Your task to perform on an android device: Open Google Maps Image 0: 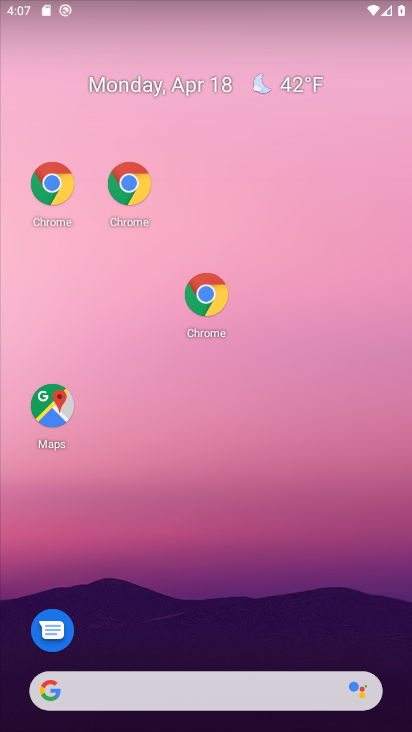
Step 0: drag from (220, 644) to (171, 35)
Your task to perform on an android device: Open Google Maps Image 1: 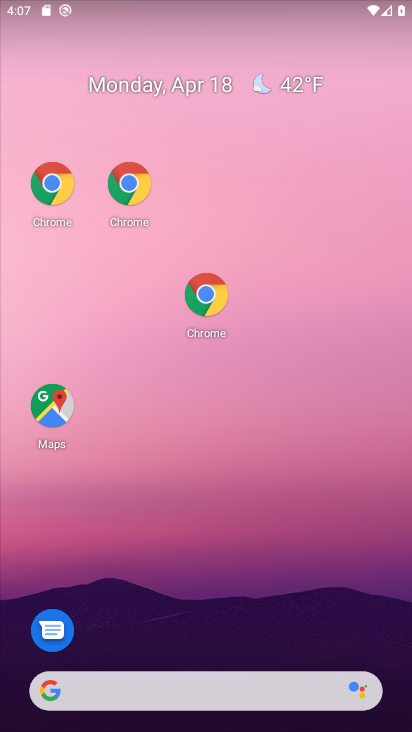
Step 1: click (169, 33)
Your task to perform on an android device: Open Google Maps Image 2: 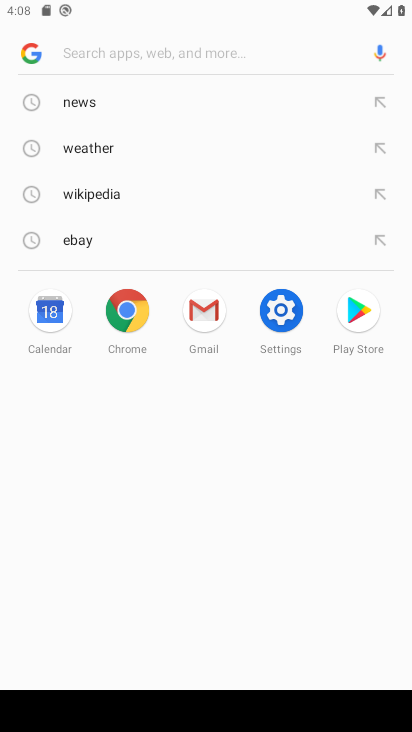
Step 2: press home button
Your task to perform on an android device: Open Google Maps Image 3: 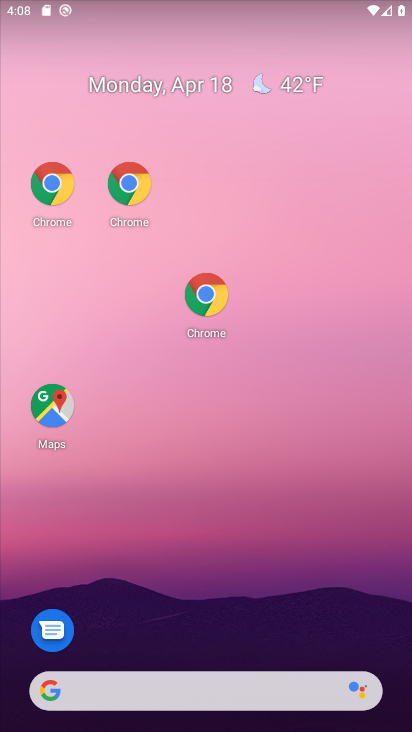
Step 3: drag from (239, 621) to (160, 148)
Your task to perform on an android device: Open Google Maps Image 4: 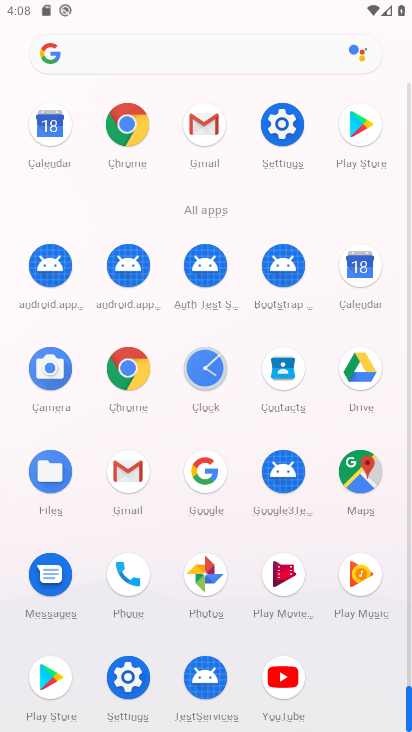
Step 4: click (352, 478)
Your task to perform on an android device: Open Google Maps Image 5: 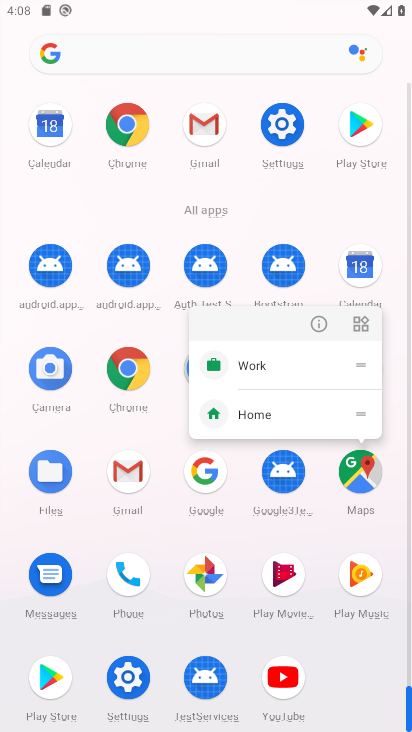
Step 5: click (361, 479)
Your task to perform on an android device: Open Google Maps Image 6: 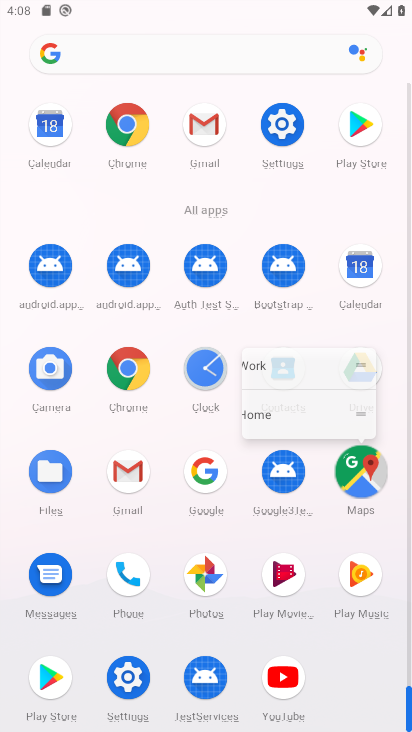
Step 6: click (361, 479)
Your task to perform on an android device: Open Google Maps Image 7: 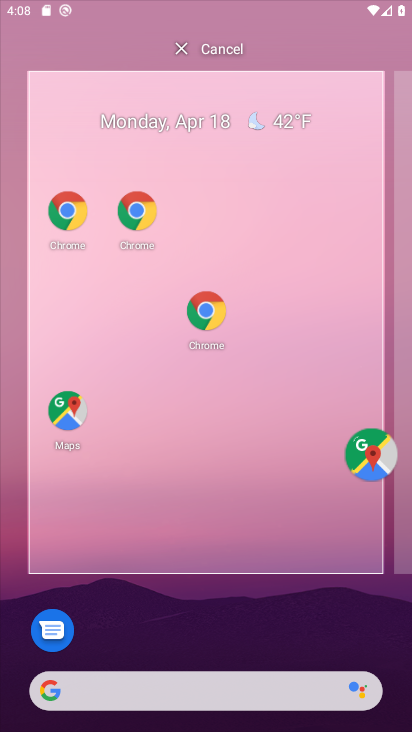
Step 7: click (371, 477)
Your task to perform on an android device: Open Google Maps Image 8: 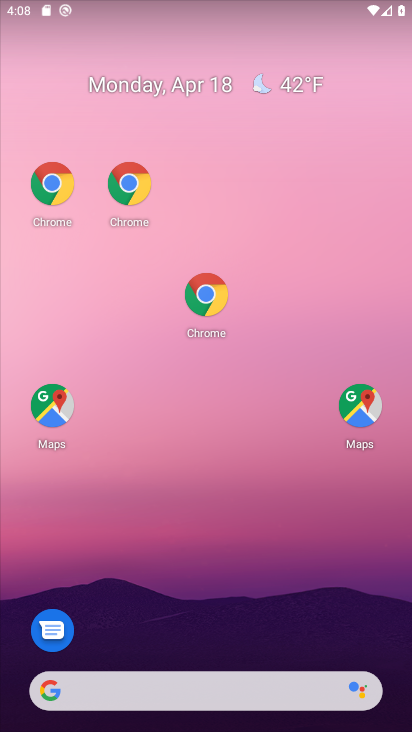
Step 8: click (354, 394)
Your task to perform on an android device: Open Google Maps Image 9: 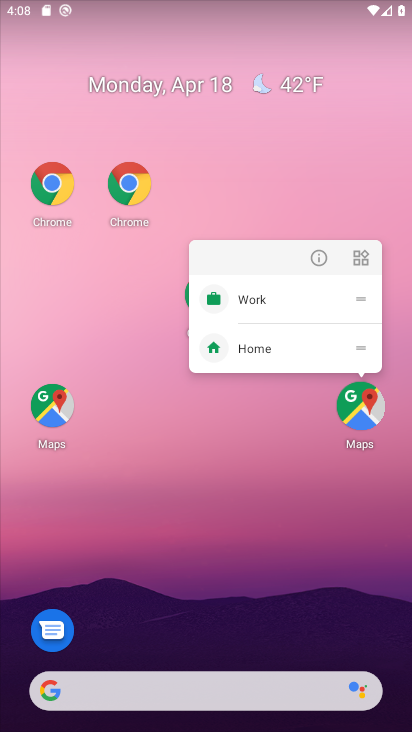
Step 9: click (354, 394)
Your task to perform on an android device: Open Google Maps Image 10: 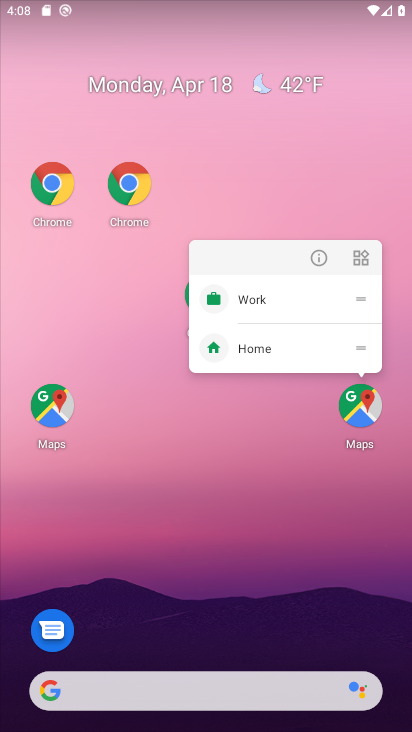
Step 10: drag from (367, 402) to (371, 464)
Your task to perform on an android device: Open Google Maps Image 11: 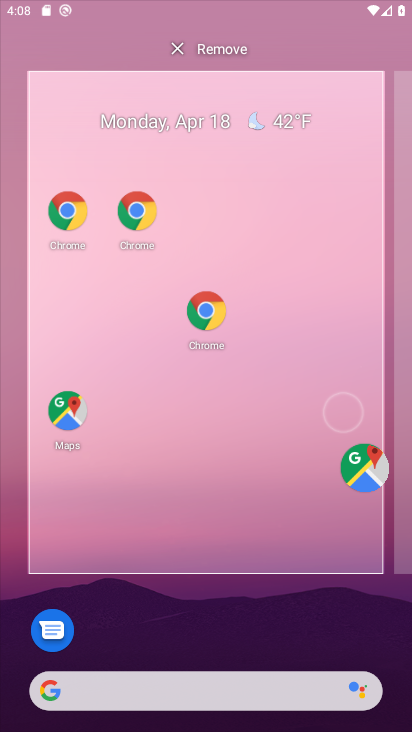
Step 11: click (355, 423)
Your task to perform on an android device: Open Google Maps Image 12: 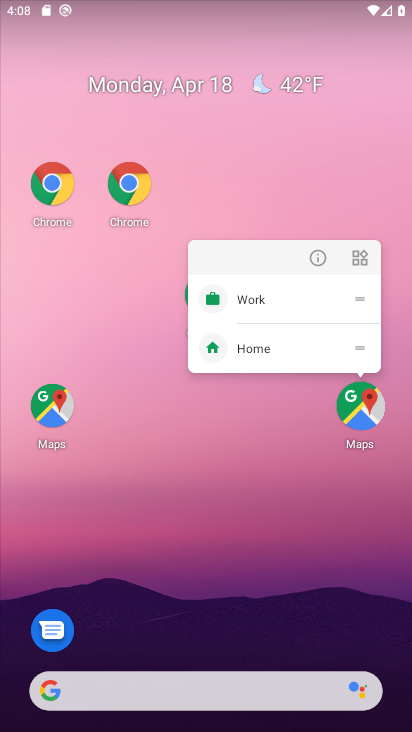
Step 12: click (333, 373)
Your task to perform on an android device: Open Google Maps Image 13: 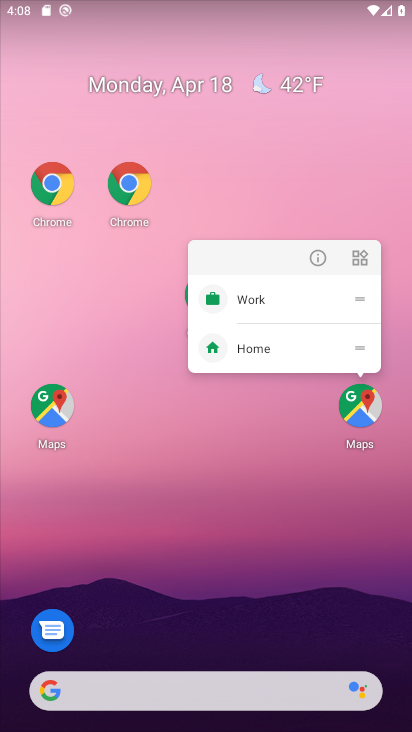
Step 13: click (346, 404)
Your task to perform on an android device: Open Google Maps Image 14: 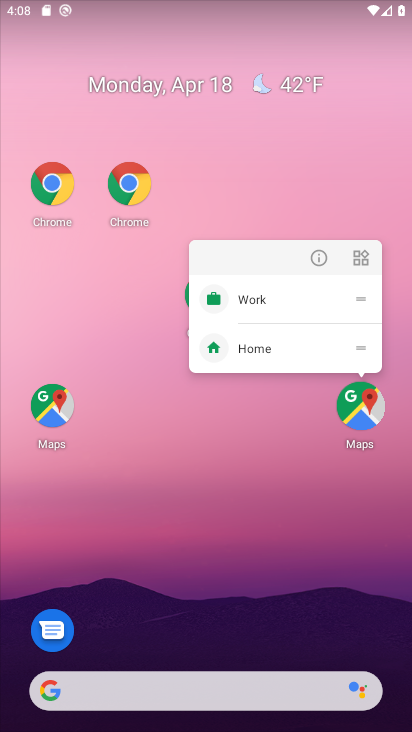
Step 14: click (342, 407)
Your task to perform on an android device: Open Google Maps Image 15: 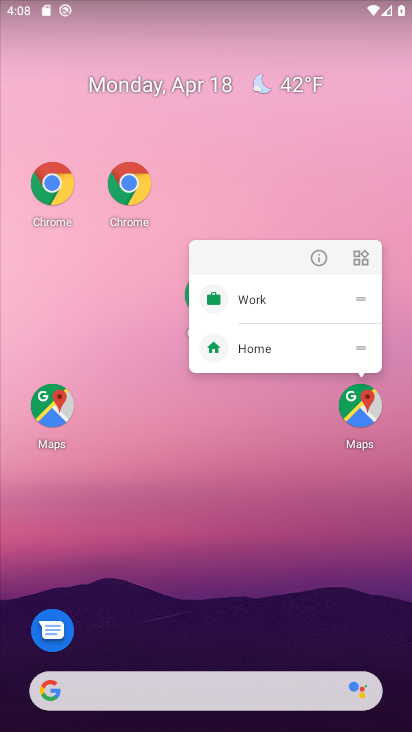
Step 15: click (356, 407)
Your task to perform on an android device: Open Google Maps Image 16: 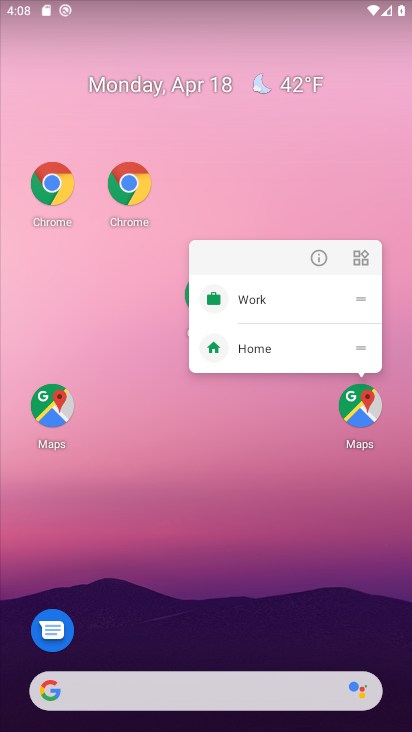
Step 16: drag from (389, 627) to (187, 0)
Your task to perform on an android device: Open Google Maps Image 17: 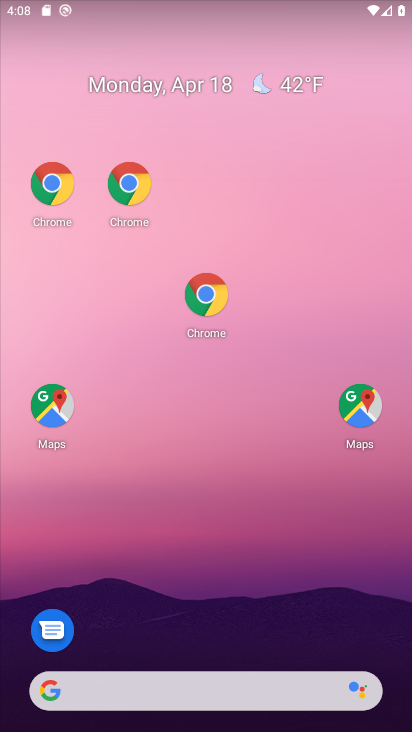
Step 17: drag from (344, 693) to (169, 74)
Your task to perform on an android device: Open Google Maps Image 18: 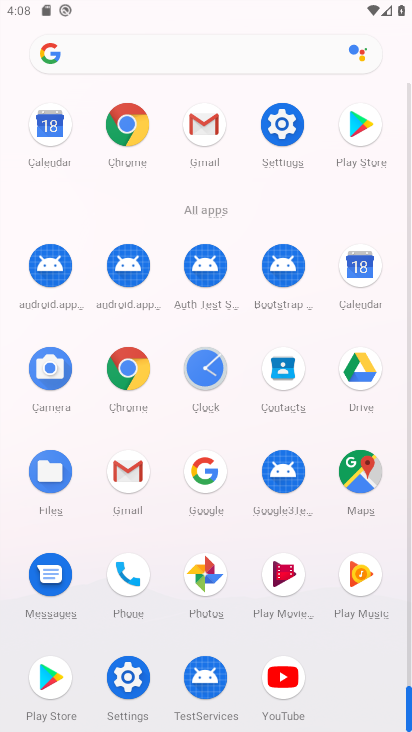
Step 18: drag from (389, 652) to (248, 175)
Your task to perform on an android device: Open Google Maps Image 19: 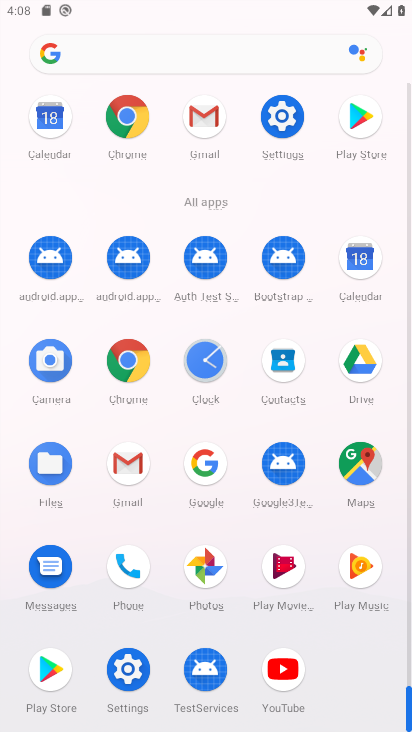
Step 19: click (356, 457)
Your task to perform on an android device: Open Google Maps Image 20: 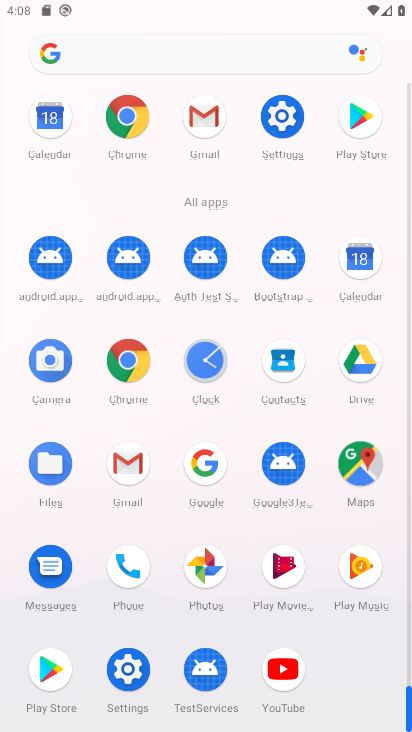
Step 20: click (356, 458)
Your task to perform on an android device: Open Google Maps Image 21: 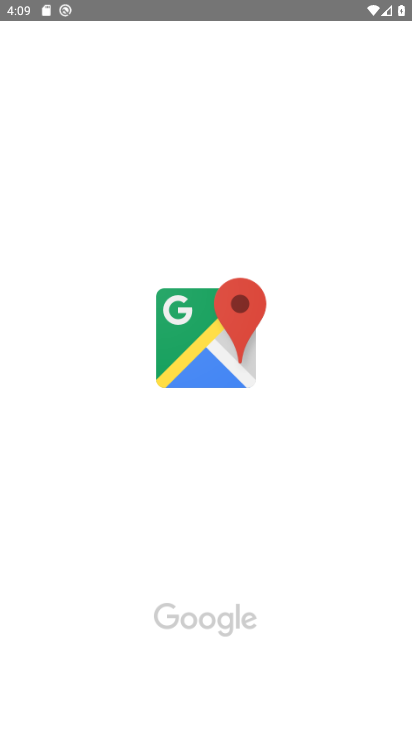
Step 21: task complete